Your task to perform on an android device: turn on improve location accuracy Image 0: 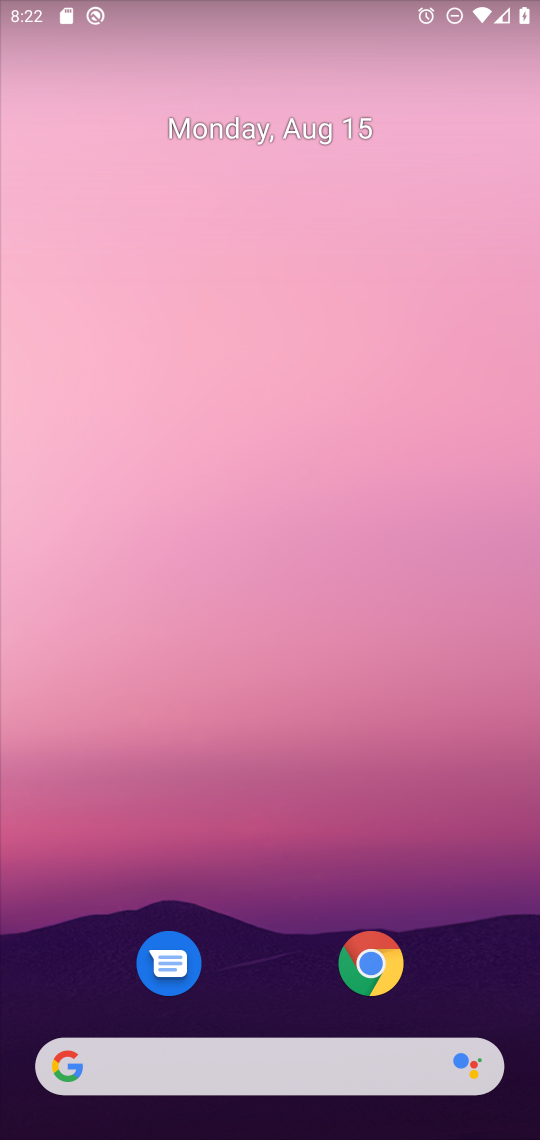
Step 0: drag from (249, 1018) to (402, 122)
Your task to perform on an android device: turn on improve location accuracy Image 1: 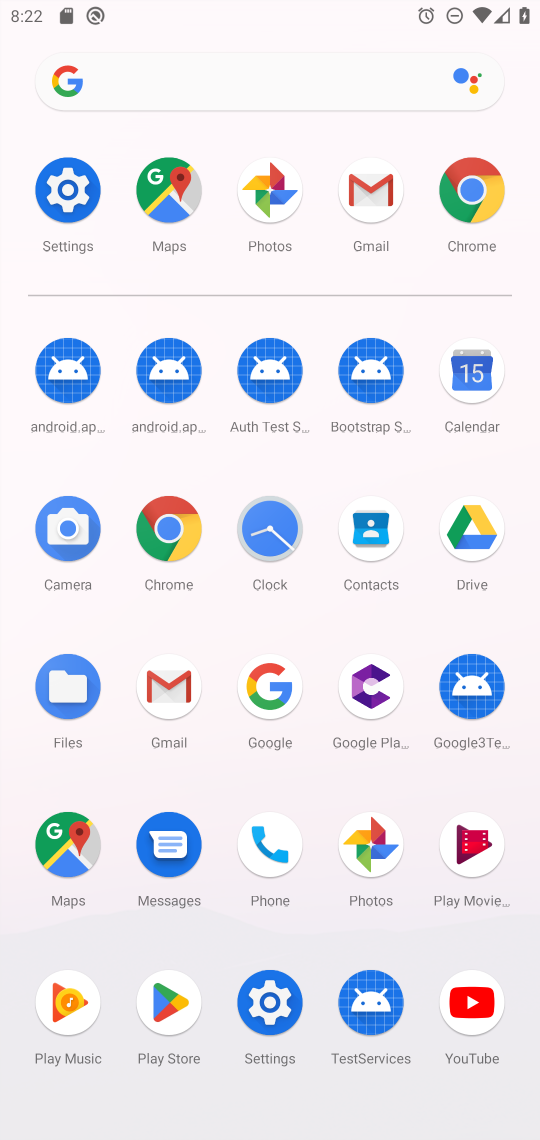
Step 1: click (77, 212)
Your task to perform on an android device: turn on improve location accuracy Image 2: 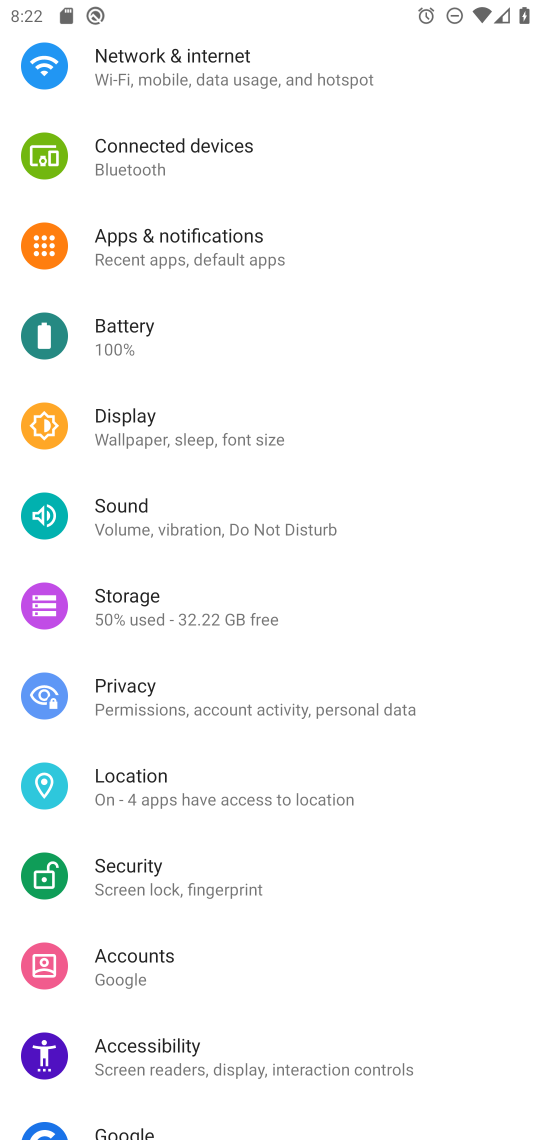
Step 2: click (160, 776)
Your task to perform on an android device: turn on improve location accuracy Image 3: 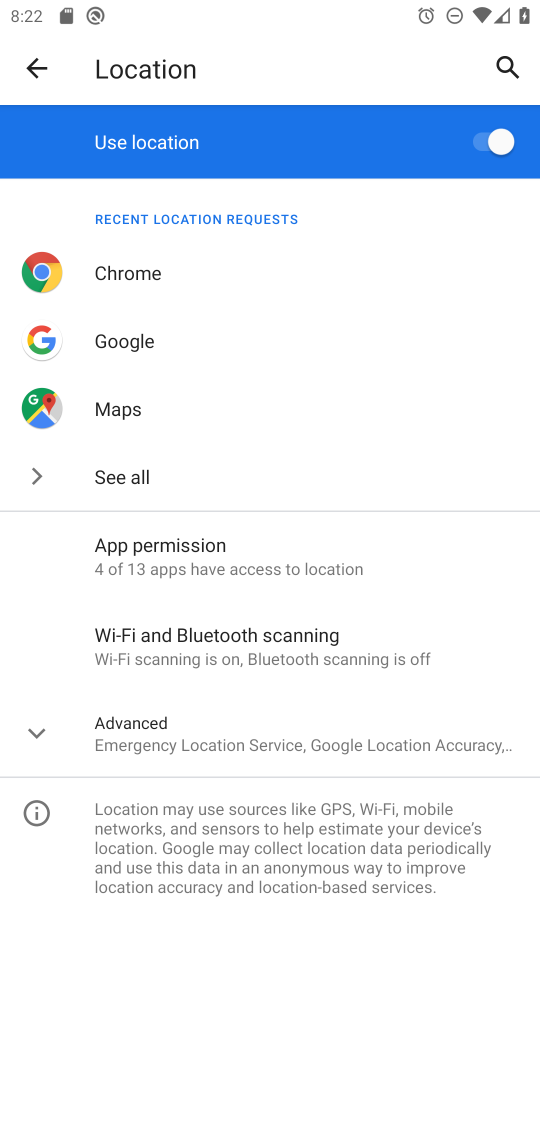
Step 3: click (280, 735)
Your task to perform on an android device: turn on improve location accuracy Image 4: 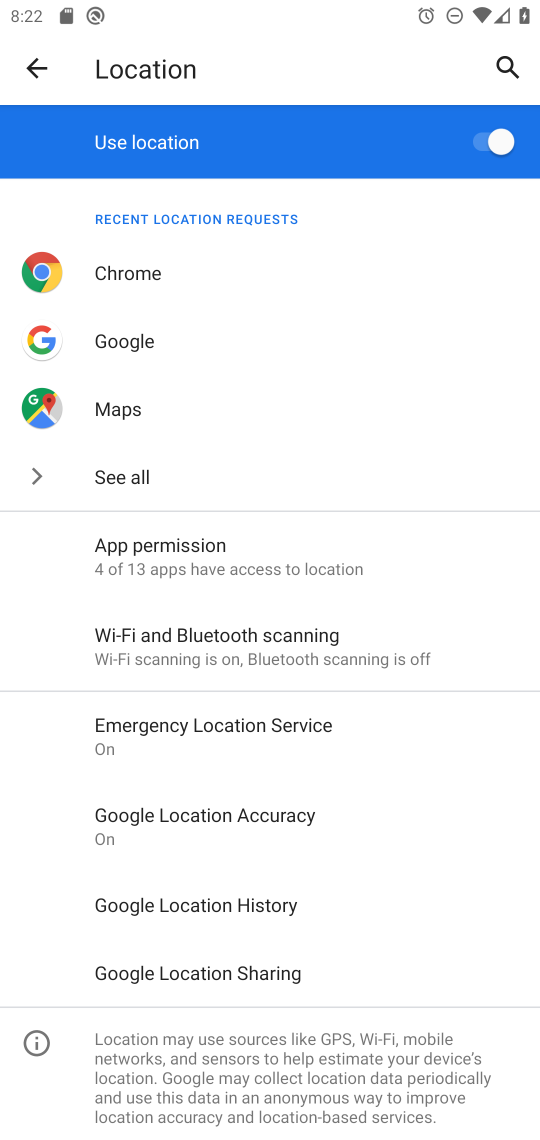
Step 4: click (246, 823)
Your task to perform on an android device: turn on improve location accuracy Image 5: 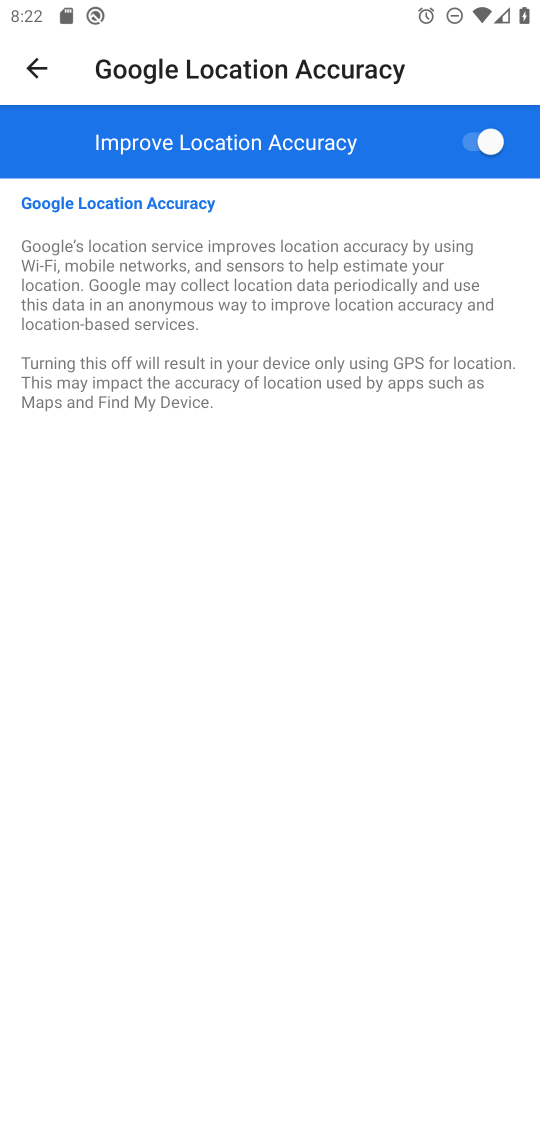
Step 5: task complete